Your task to perform on an android device: search for starred emails in the gmail app Image 0: 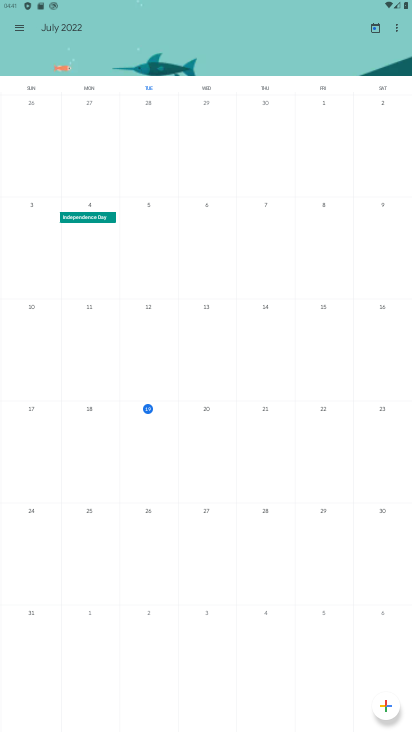
Step 0: press home button
Your task to perform on an android device: search for starred emails in the gmail app Image 1: 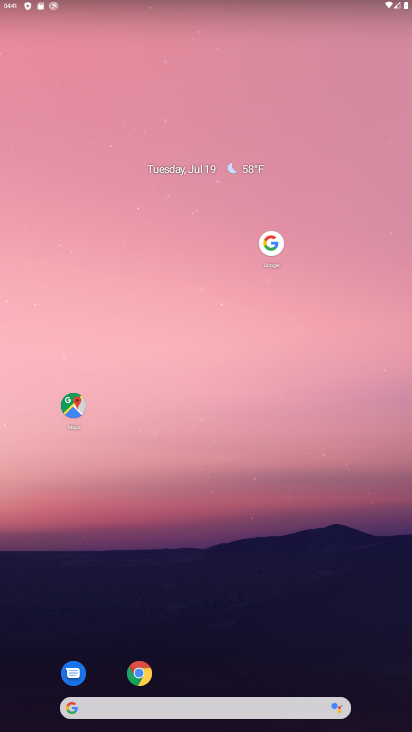
Step 1: drag from (246, 631) to (273, 111)
Your task to perform on an android device: search for starred emails in the gmail app Image 2: 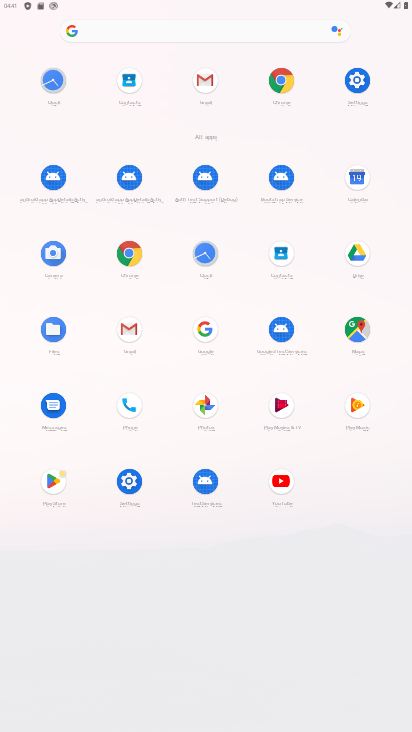
Step 2: click (211, 85)
Your task to perform on an android device: search for starred emails in the gmail app Image 3: 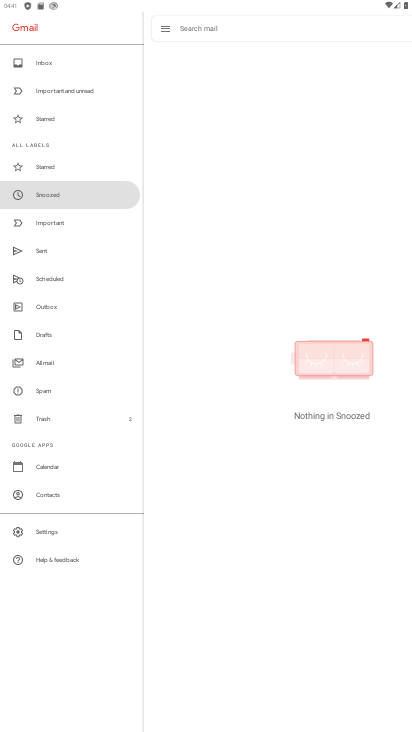
Step 3: click (72, 162)
Your task to perform on an android device: search for starred emails in the gmail app Image 4: 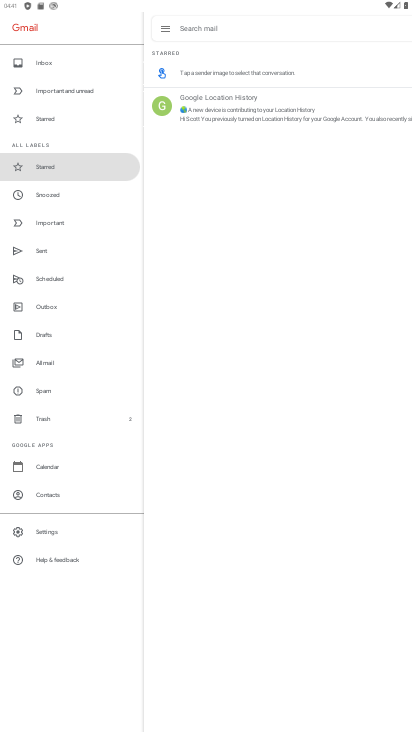
Step 4: task complete